Your task to perform on an android device: Is it going to rain this weekend? Image 0: 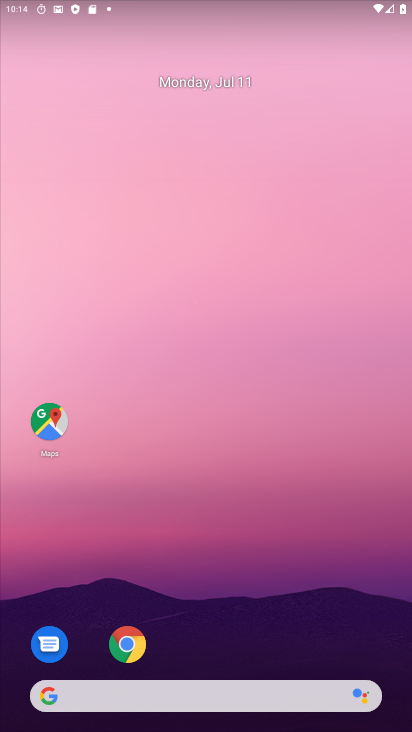
Step 0: drag from (228, 642) to (276, 106)
Your task to perform on an android device: Is it going to rain this weekend? Image 1: 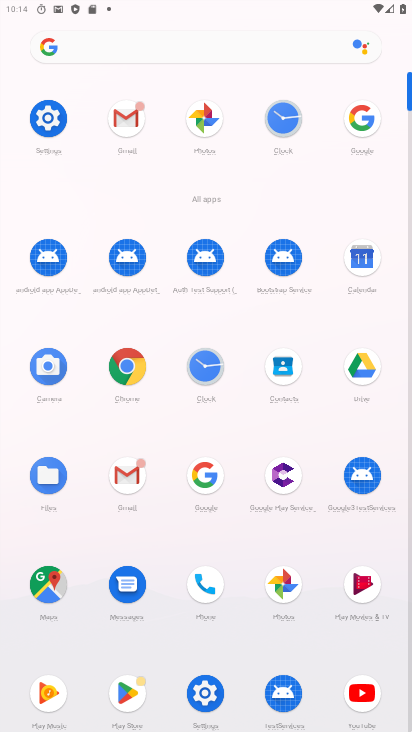
Step 1: click (363, 121)
Your task to perform on an android device: Is it going to rain this weekend? Image 2: 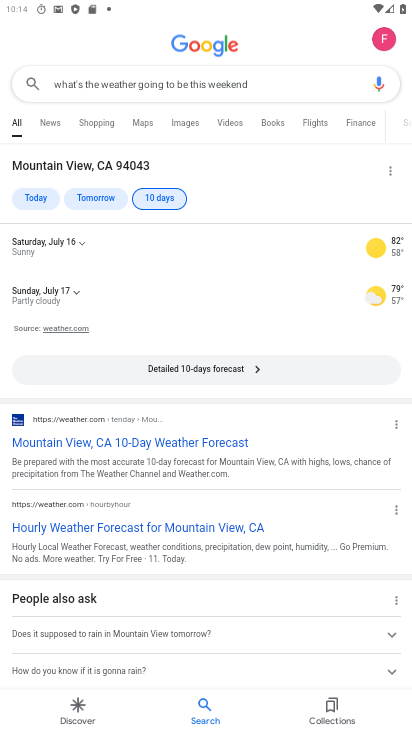
Step 2: click (273, 81)
Your task to perform on an android device: Is it going to rain this weekend? Image 3: 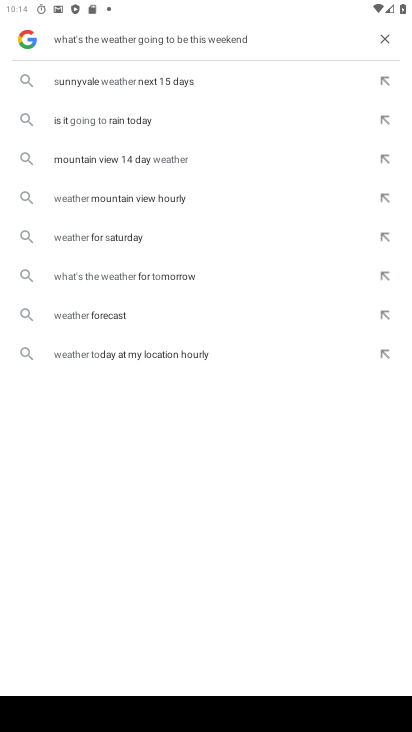
Step 3: click (386, 35)
Your task to perform on an android device: Is it going to rain this weekend? Image 4: 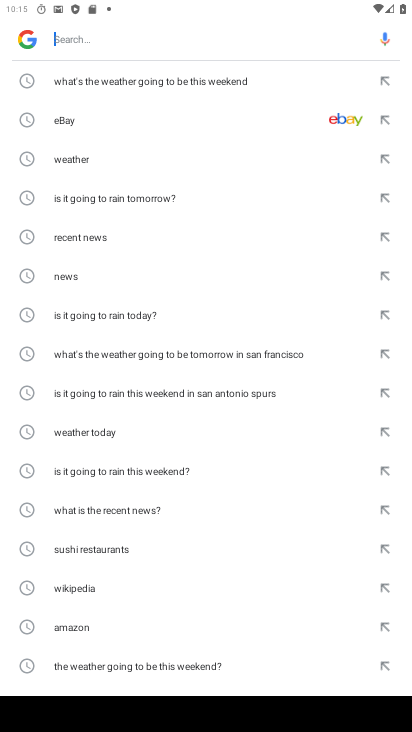
Step 4: type "Is it going to rain this weekend?"
Your task to perform on an android device: Is it going to rain this weekend? Image 5: 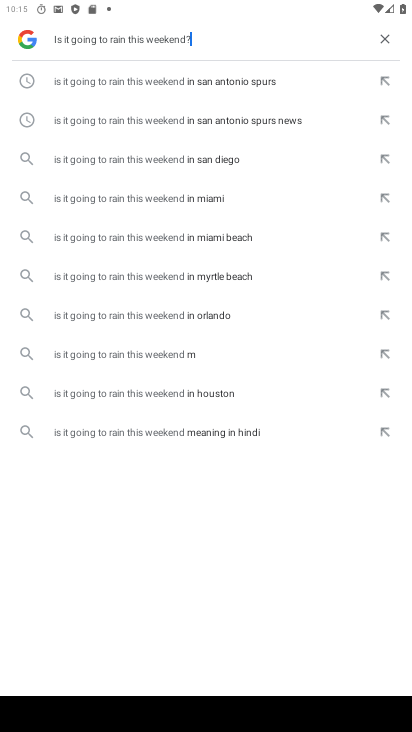
Step 5: click (385, 38)
Your task to perform on an android device: Is it going to rain this weekend? Image 6: 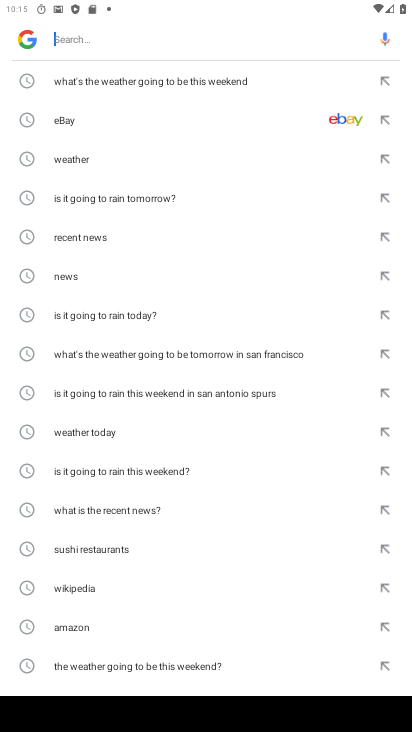
Step 6: click (151, 475)
Your task to perform on an android device: Is it going to rain this weekend? Image 7: 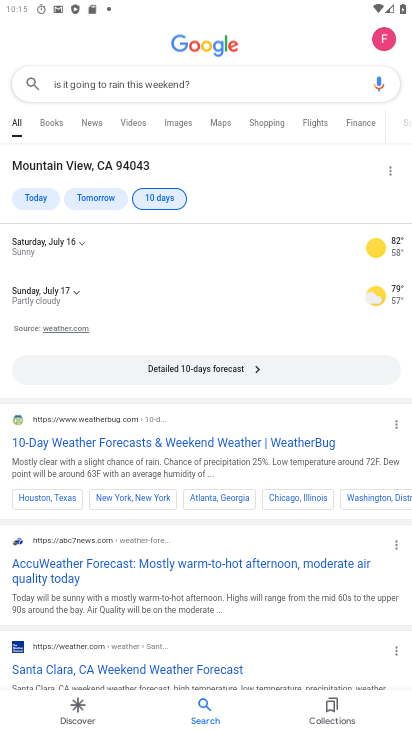
Step 7: task complete